Your task to perform on an android device: Open sound settings Image 0: 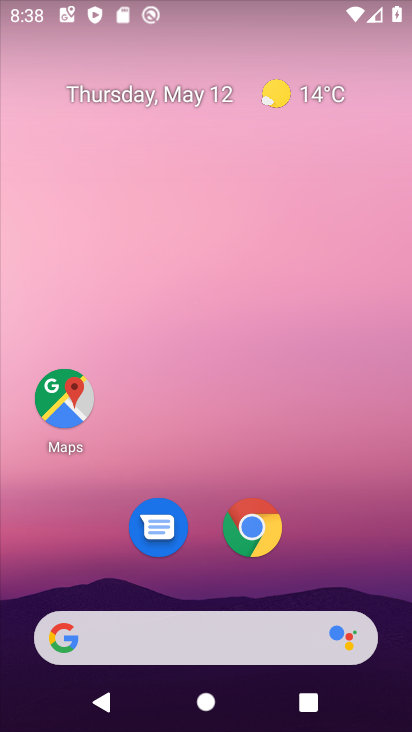
Step 0: drag from (335, 568) to (298, 71)
Your task to perform on an android device: Open sound settings Image 1: 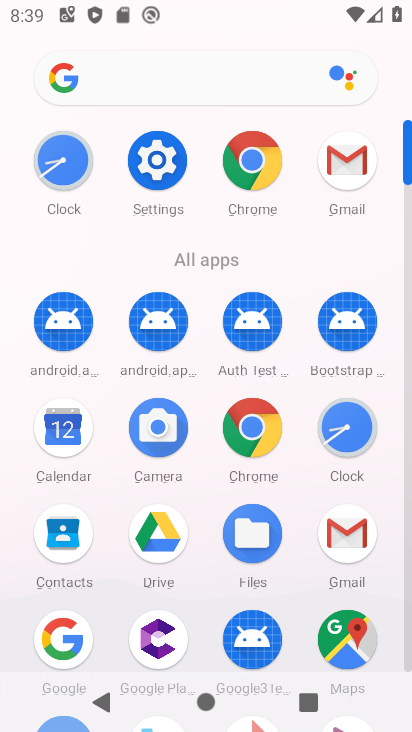
Step 1: click (175, 192)
Your task to perform on an android device: Open sound settings Image 2: 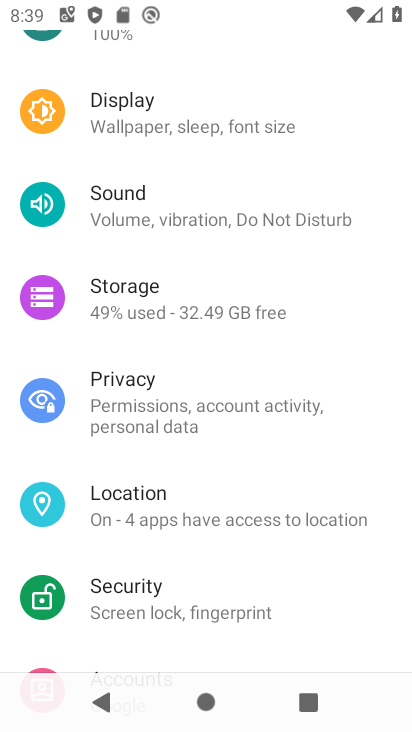
Step 2: click (143, 216)
Your task to perform on an android device: Open sound settings Image 3: 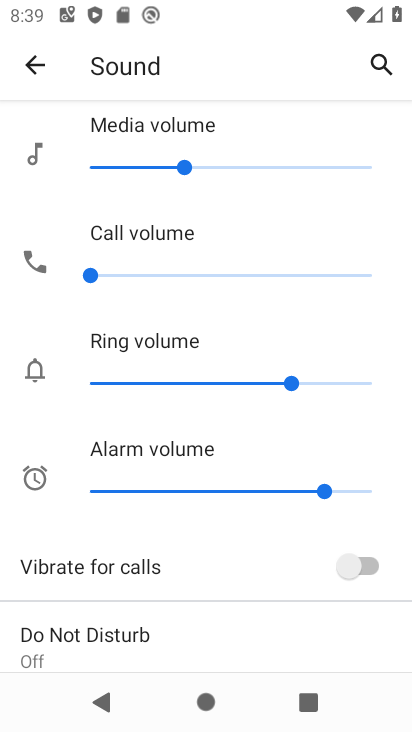
Step 3: task complete